Your task to perform on an android device: turn off smart reply in the gmail app Image 0: 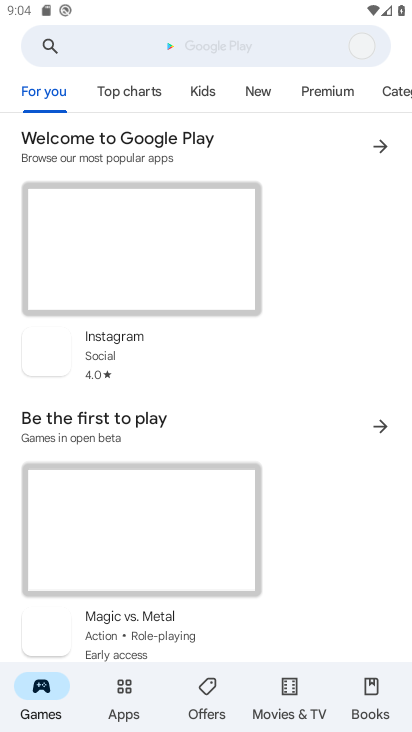
Step 0: press home button
Your task to perform on an android device: turn off smart reply in the gmail app Image 1: 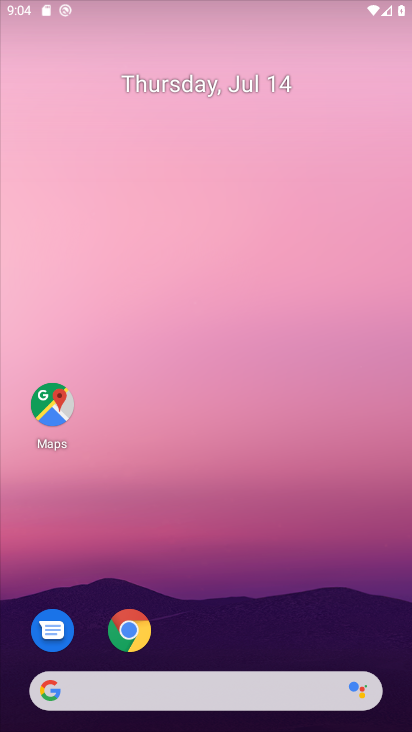
Step 1: drag from (179, 654) to (317, 203)
Your task to perform on an android device: turn off smart reply in the gmail app Image 2: 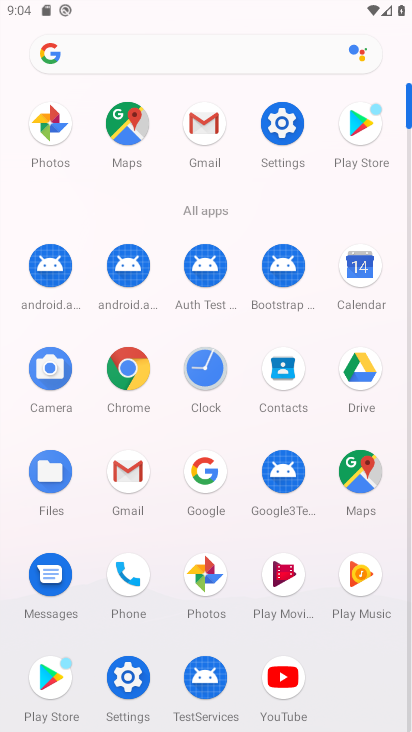
Step 2: click (128, 478)
Your task to perform on an android device: turn off smart reply in the gmail app Image 3: 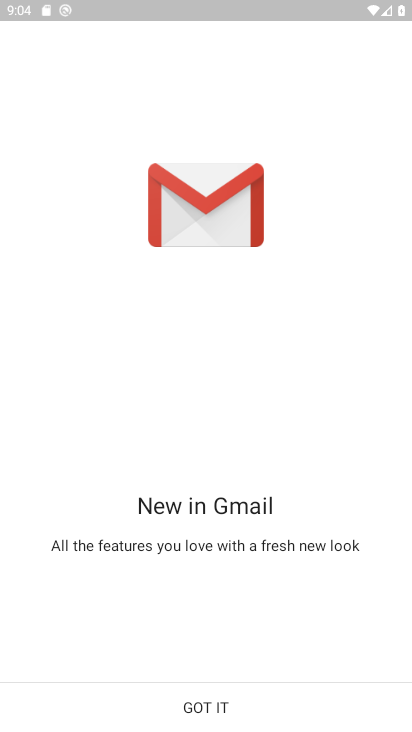
Step 3: click (136, 700)
Your task to perform on an android device: turn off smart reply in the gmail app Image 4: 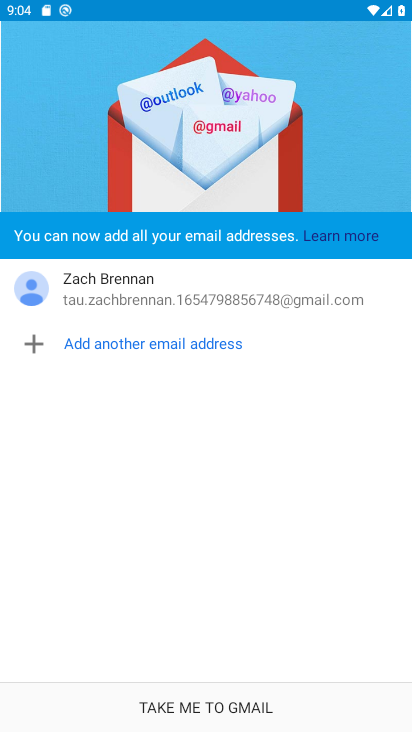
Step 4: click (212, 704)
Your task to perform on an android device: turn off smart reply in the gmail app Image 5: 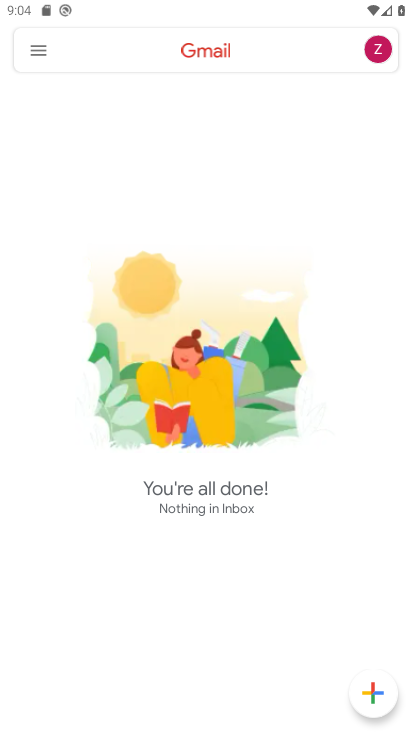
Step 5: click (53, 56)
Your task to perform on an android device: turn off smart reply in the gmail app Image 6: 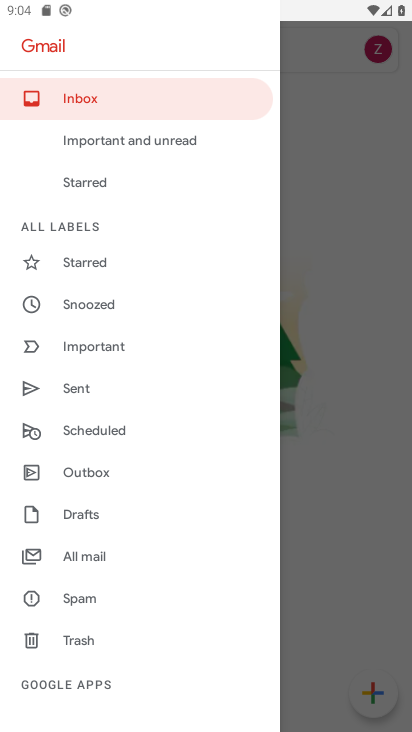
Step 6: drag from (72, 615) to (148, 297)
Your task to perform on an android device: turn off smart reply in the gmail app Image 7: 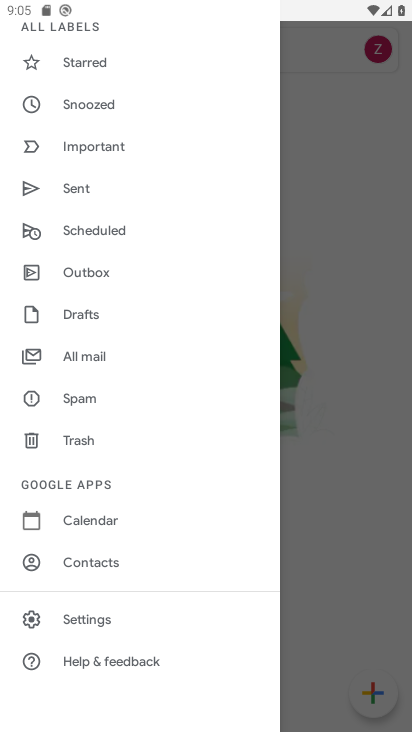
Step 7: click (48, 627)
Your task to perform on an android device: turn off smart reply in the gmail app Image 8: 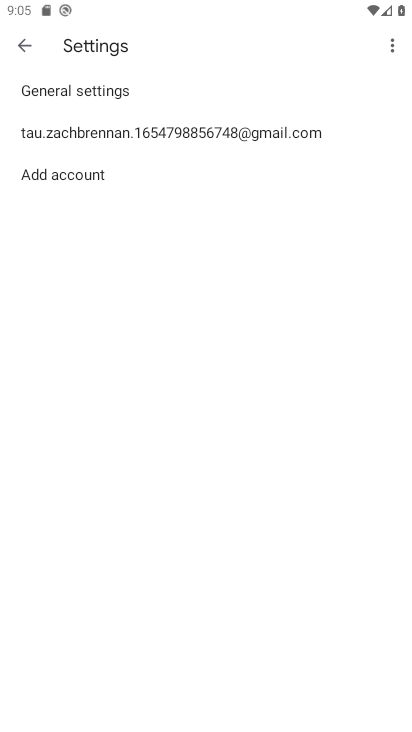
Step 8: click (165, 138)
Your task to perform on an android device: turn off smart reply in the gmail app Image 9: 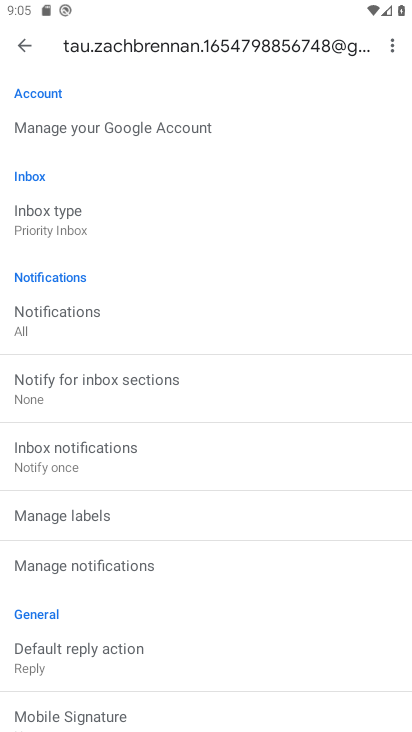
Step 9: drag from (75, 652) to (201, 266)
Your task to perform on an android device: turn off smart reply in the gmail app Image 10: 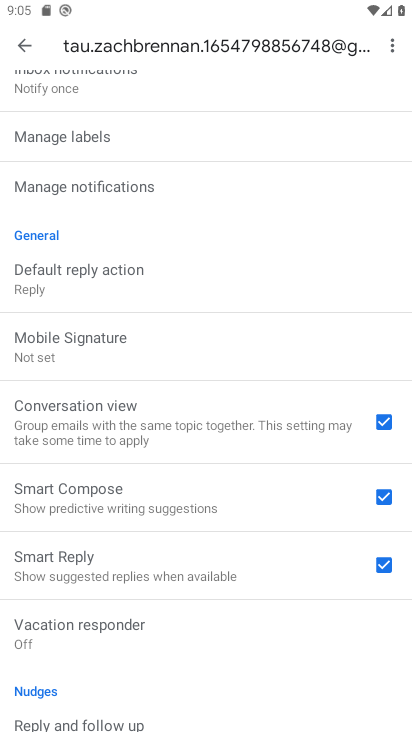
Step 10: click (394, 559)
Your task to perform on an android device: turn off smart reply in the gmail app Image 11: 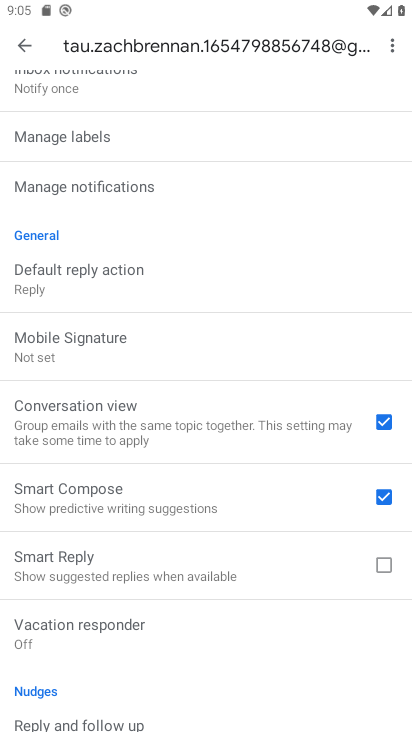
Step 11: task complete